Your task to perform on an android device: toggle notifications settings in the gmail app Image 0: 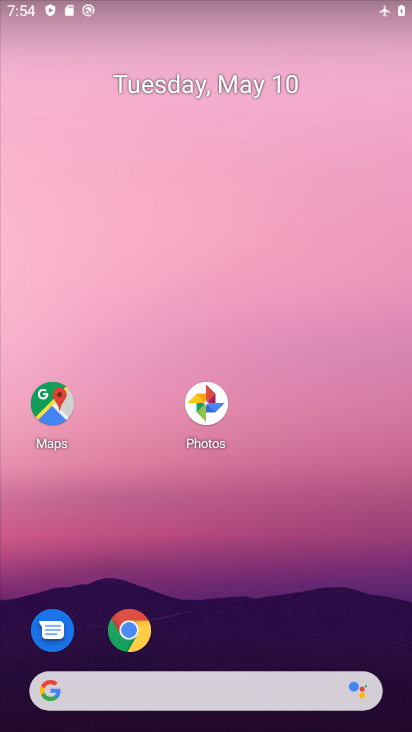
Step 0: drag from (220, 658) to (201, 65)
Your task to perform on an android device: toggle notifications settings in the gmail app Image 1: 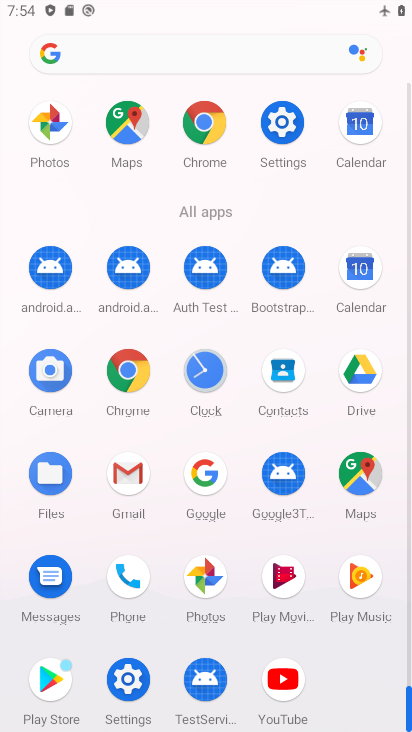
Step 1: click (134, 466)
Your task to perform on an android device: toggle notifications settings in the gmail app Image 2: 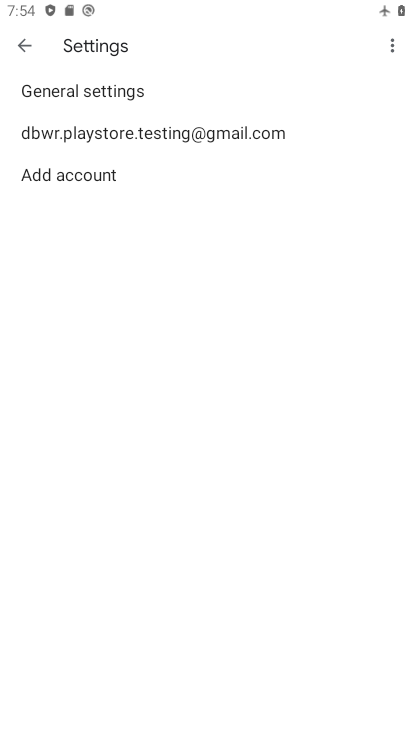
Step 2: click (46, 90)
Your task to perform on an android device: toggle notifications settings in the gmail app Image 3: 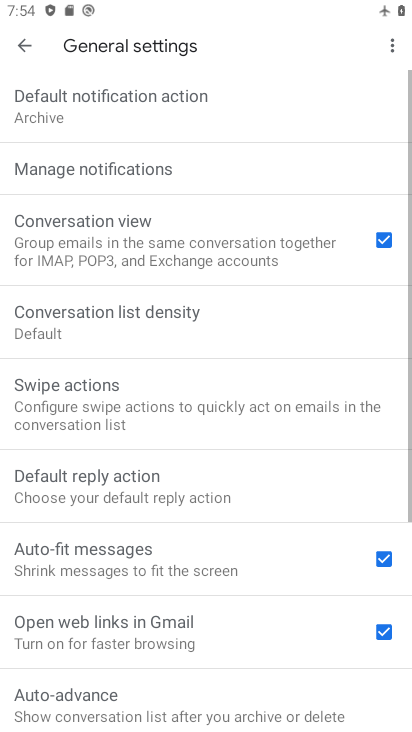
Step 3: click (73, 183)
Your task to perform on an android device: toggle notifications settings in the gmail app Image 4: 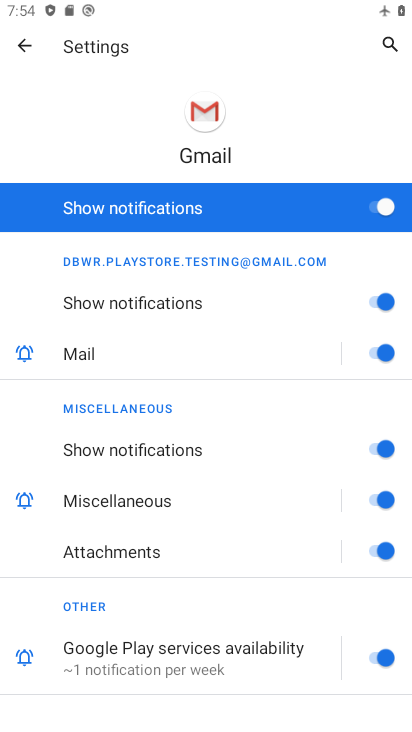
Step 4: click (361, 210)
Your task to perform on an android device: toggle notifications settings in the gmail app Image 5: 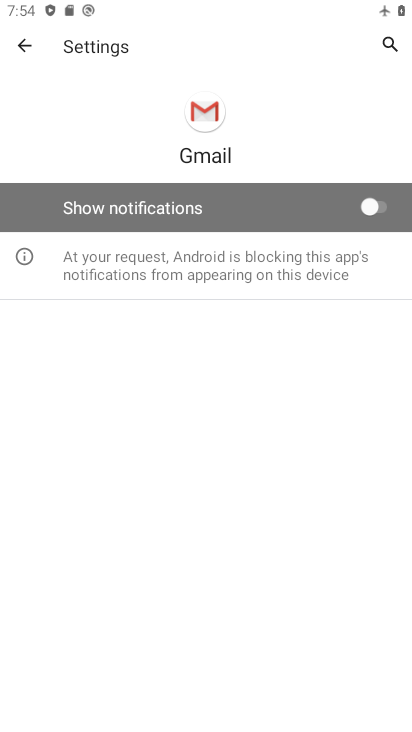
Step 5: task complete